Your task to perform on an android device: Open my contact list Image 0: 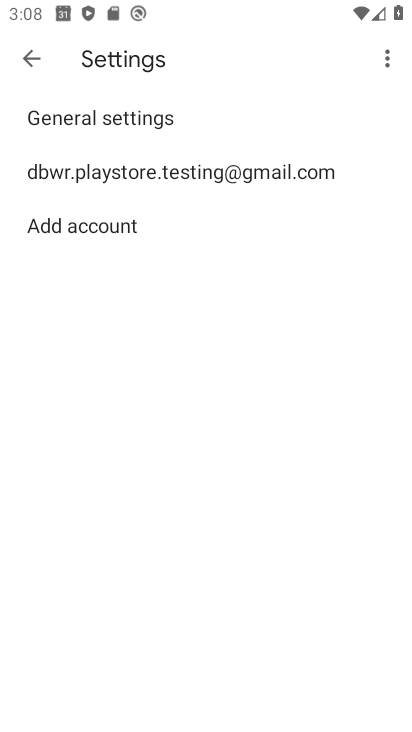
Step 0: press home button
Your task to perform on an android device: Open my contact list Image 1: 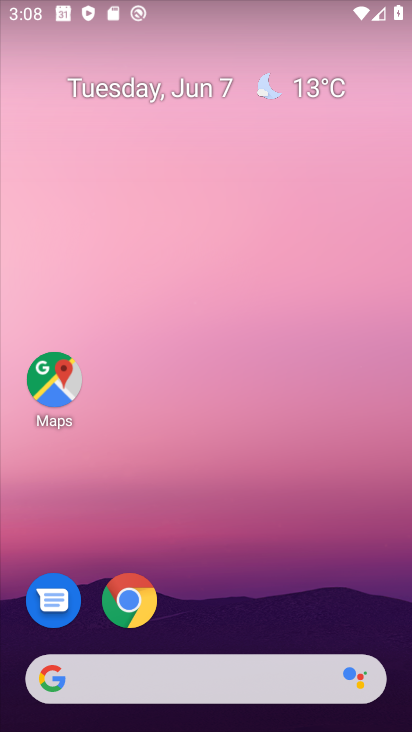
Step 1: drag from (233, 603) to (171, 109)
Your task to perform on an android device: Open my contact list Image 2: 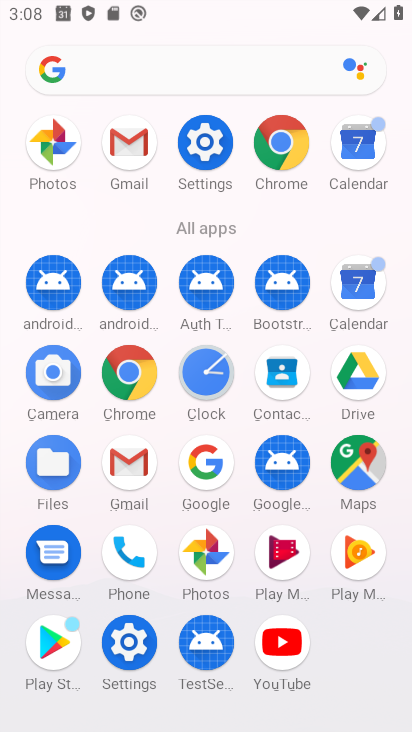
Step 2: click (295, 366)
Your task to perform on an android device: Open my contact list Image 3: 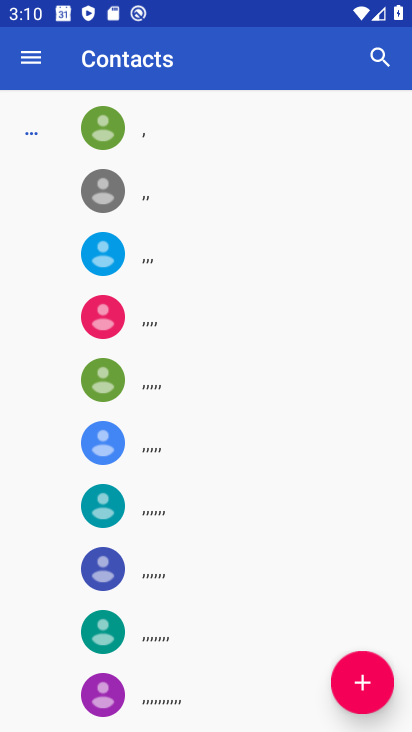
Step 3: task complete